Your task to perform on an android device: What's the weather today? Image 0: 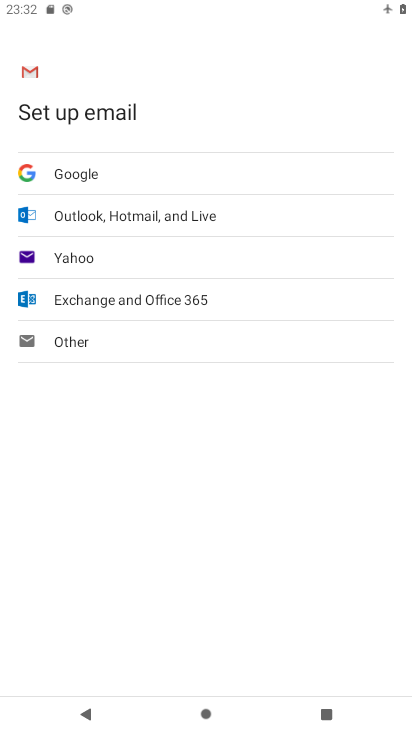
Step 0: press home button
Your task to perform on an android device: What's the weather today? Image 1: 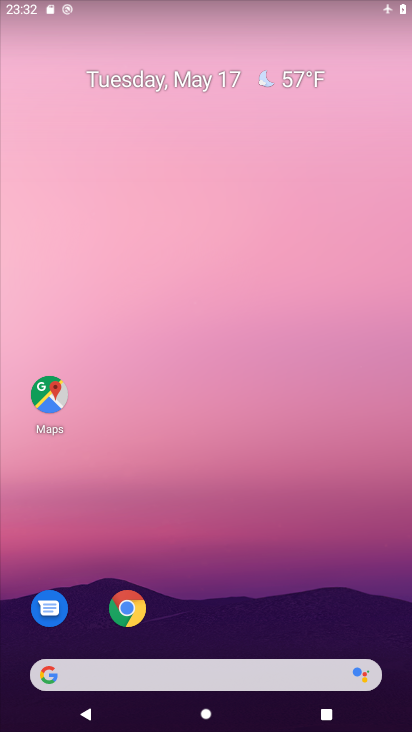
Step 1: click (298, 75)
Your task to perform on an android device: What's the weather today? Image 2: 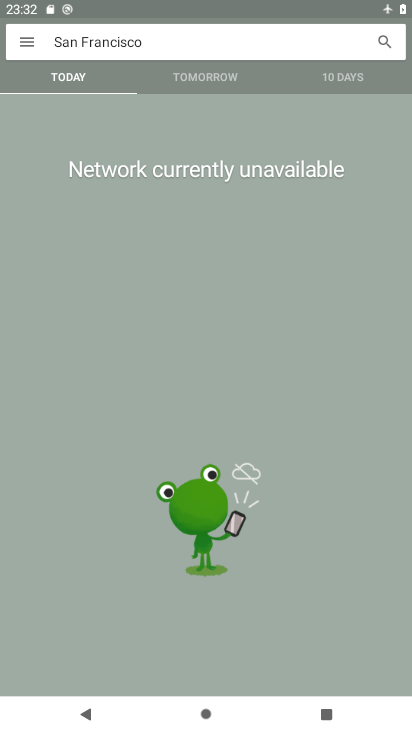
Step 2: task complete